Your task to perform on an android device: see sites visited before in the chrome app Image 0: 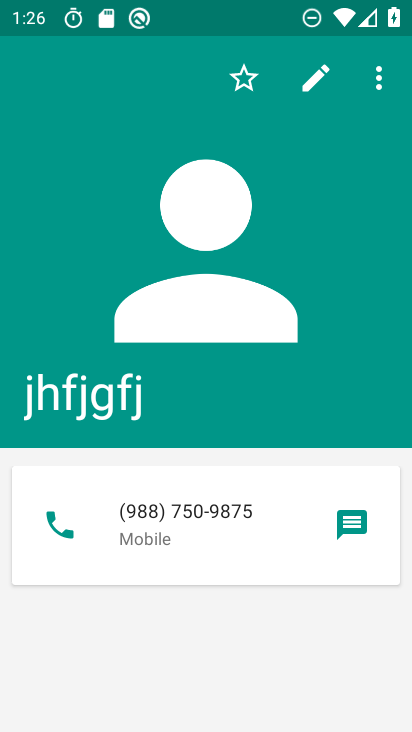
Step 0: press home button
Your task to perform on an android device: see sites visited before in the chrome app Image 1: 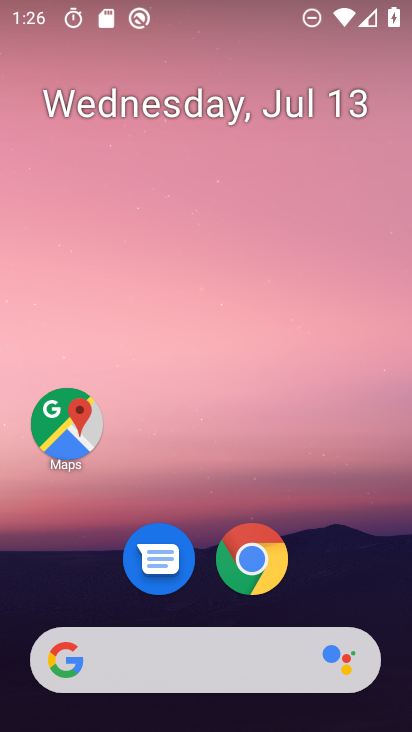
Step 1: drag from (194, 668) to (196, 239)
Your task to perform on an android device: see sites visited before in the chrome app Image 2: 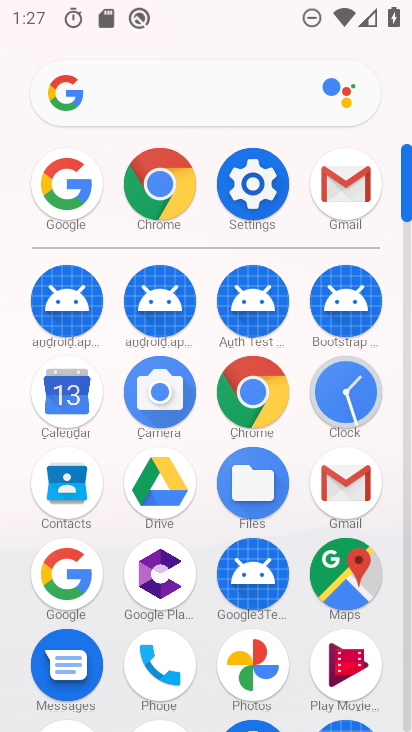
Step 2: click (255, 404)
Your task to perform on an android device: see sites visited before in the chrome app Image 3: 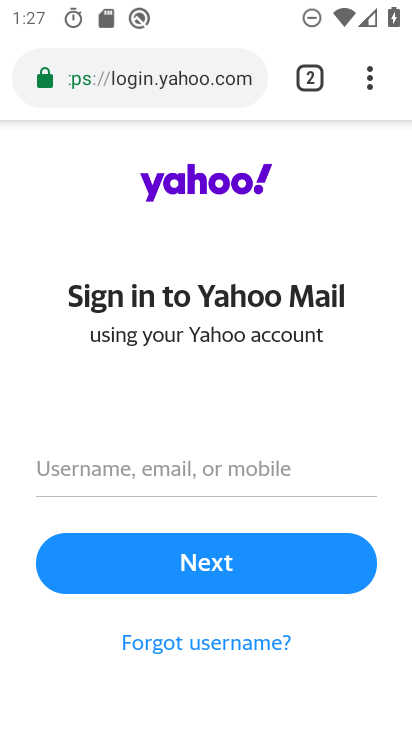
Step 3: click (380, 97)
Your task to perform on an android device: see sites visited before in the chrome app Image 4: 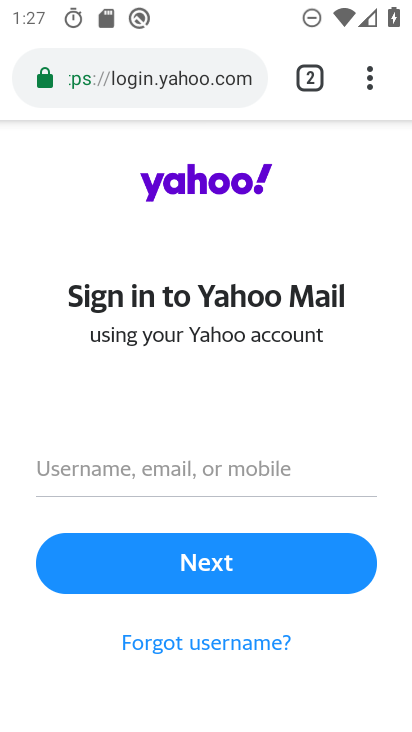
Step 4: click (371, 93)
Your task to perform on an android device: see sites visited before in the chrome app Image 5: 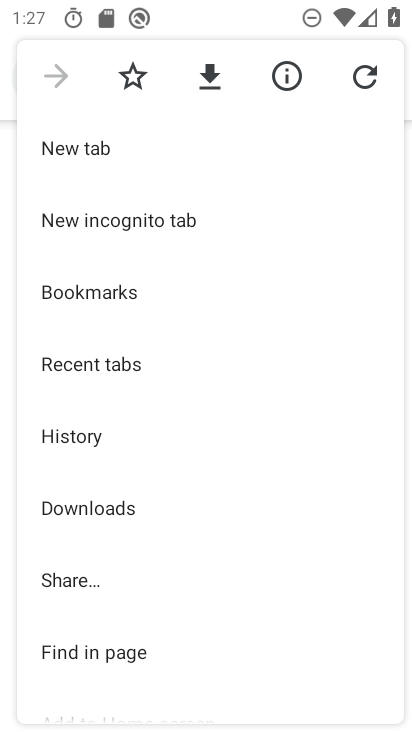
Step 5: click (70, 447)
Your task to perform on an android device: see sites visited before in the chrome app Image 6: 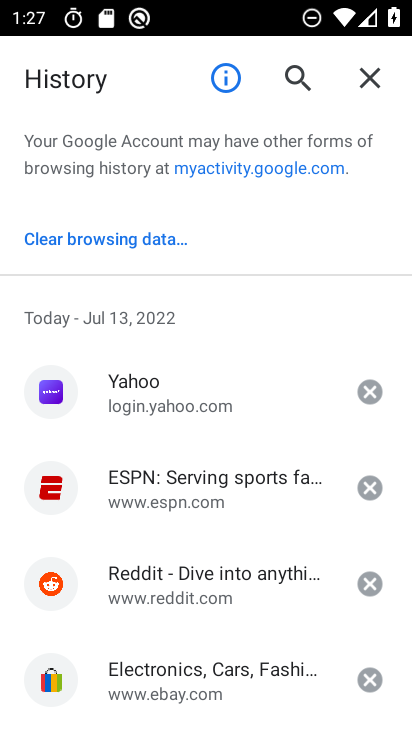
Step 6: task complete